Your task to perform on an android device: remove spam from my inbox in the gmail app Image 0: 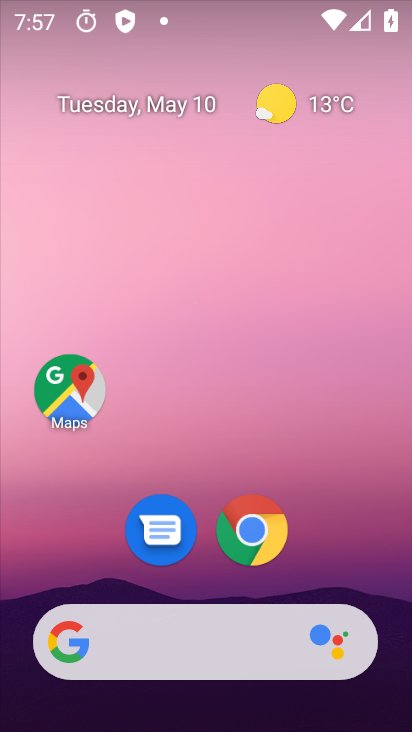
Step 0: drag from (355, 562) to (237, 151)
Your task to perform on an android device: remove spam from my inbox in the gmail app Image 1: 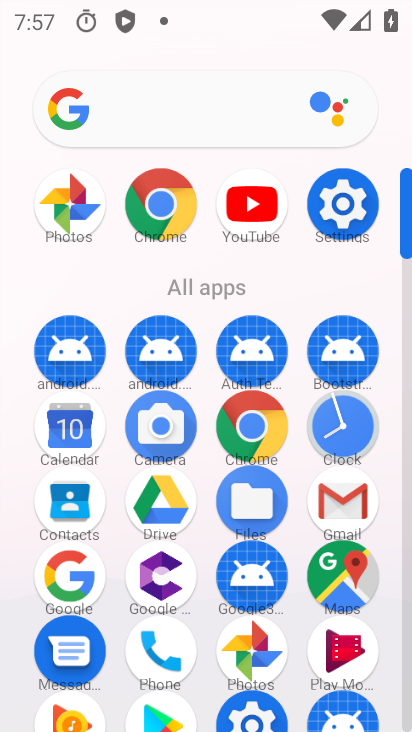
Step 1: click (358, 509)
Your task to perform on an android device: remove spam from my inbox in the gmail app Image 2: 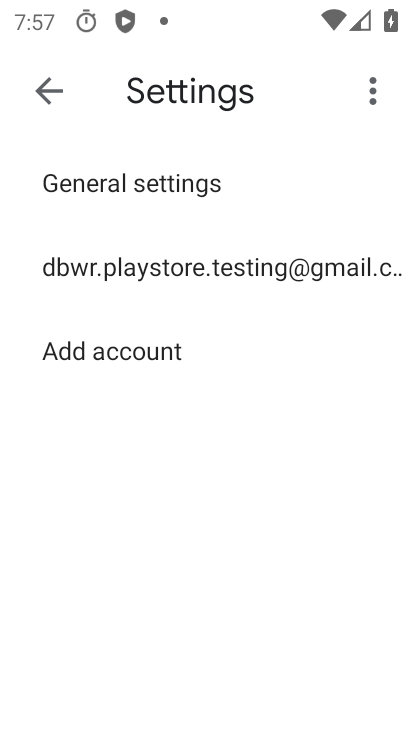
Step 2: click (229, 268)
Your task to perform on an android device: remove spam from my inbox in the gmail app Image 3: 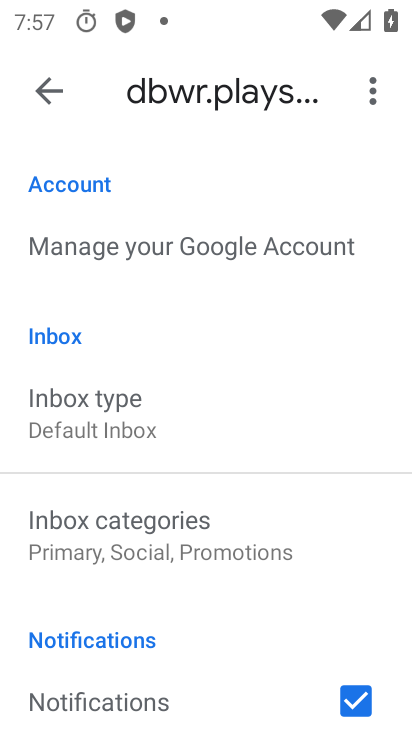
Step 3: click (40, 84)
Your task to perform on an android device: remove spam from my inbox in the gmail app Image 4: 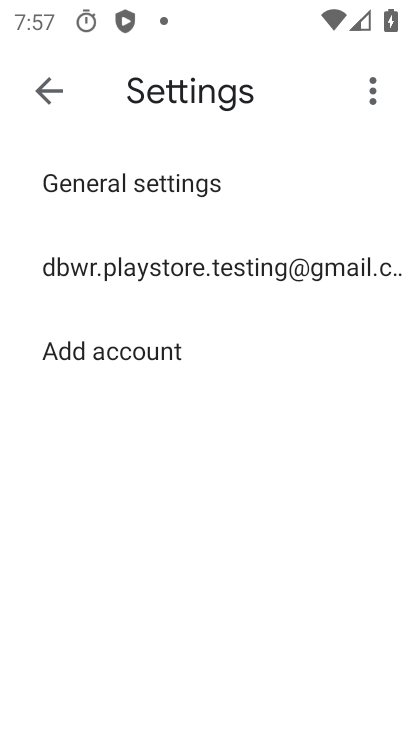
Step 4: click (40, 84)
Your task to perform on an android device: remove spam from my inbox in the gmail app Image 5: 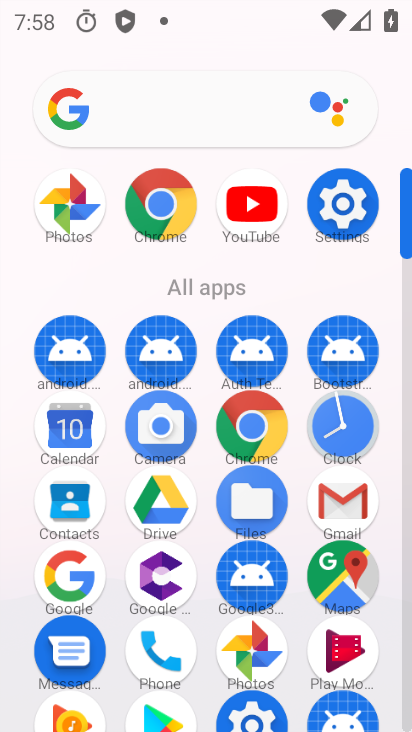
Step 5: click (347, 511)
Your task to perform on an android device: remove spam from my inbox in the gmail app Image 6: 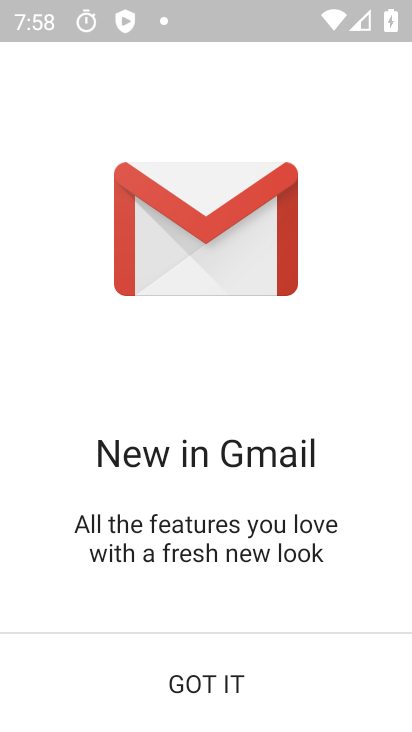
Step 6: click (190, 679)
Your task to perform on an android device: remove spam from my inbox in the gmail app Image 7: 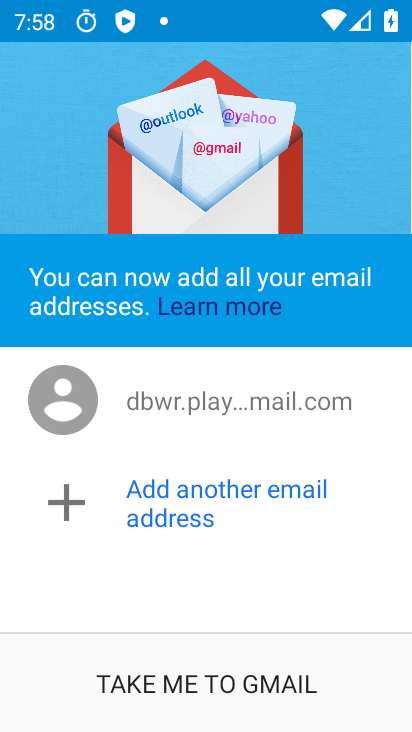
Step 7: click (190, 679)
Your task to perform on an android device: remove spam from my inbox in the gmail app Image 8: 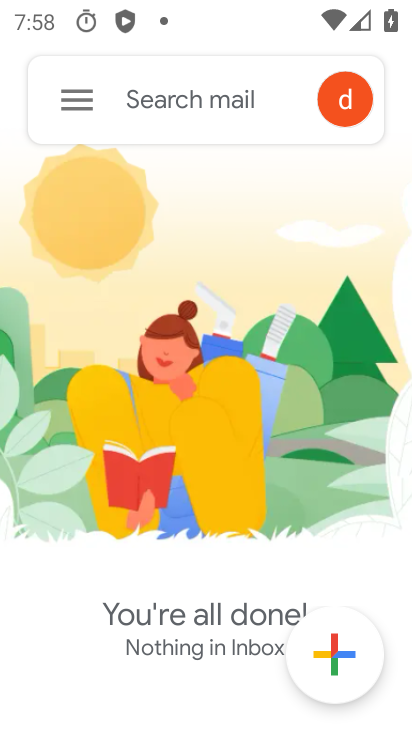
Step 8: click (74, 95)
Your task to perform on an android device: remove spam from my inbox in the gmail app Image 9: 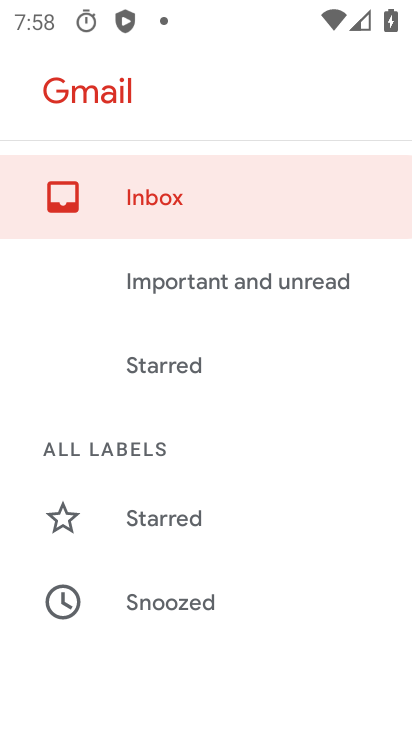
Step 9: click (167, 184)
Your task to perform on an android device: remove spam from my inbox in the gmail app Image 10: 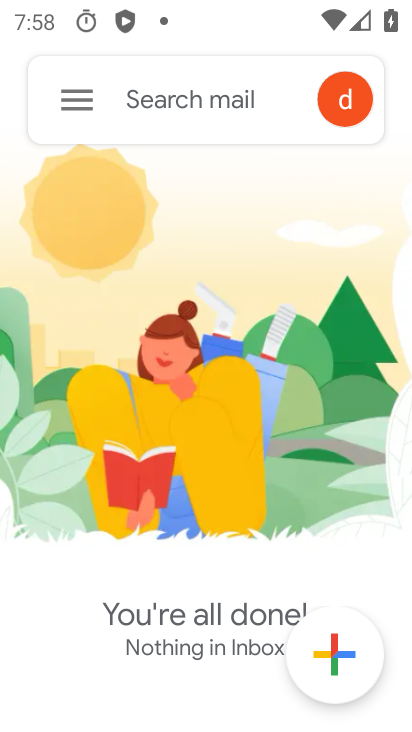
Step 10: task complete